Your task to perform on an android device: turn off airplane mode Image 0: 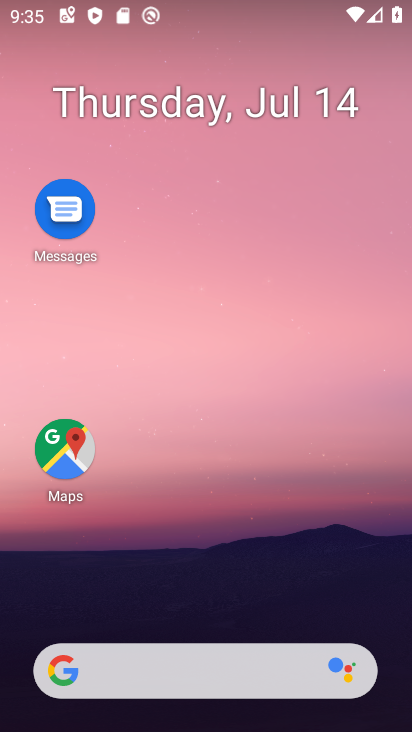
Step 0: drag from (202, 610) to (214, 105)
Your task to perform on an android device: turn off airplane mode Image 1: 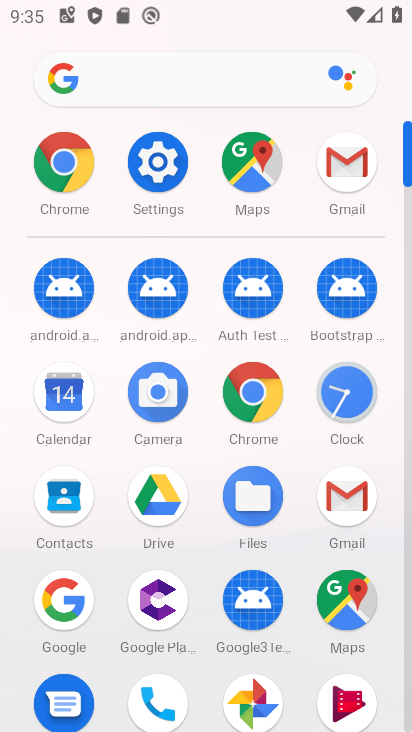
Step 1: click (139, 175)
Your task to perform on an android device: turn off airplane mode Image 2: 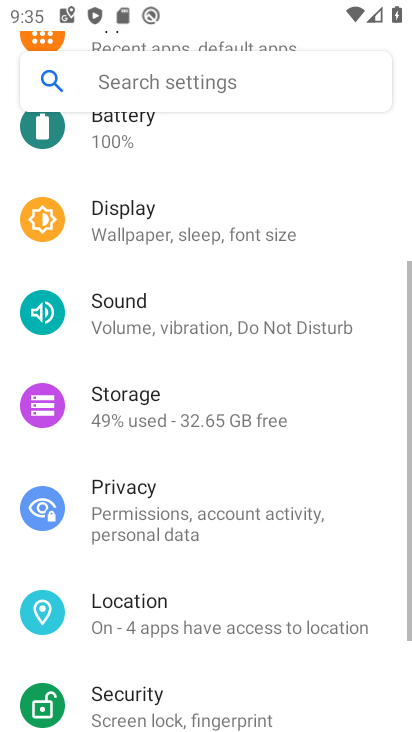
Step 2: drag from (161, 269) to (148, 691)
Your task to perform on an android device: turn off airplane mode Image 3: 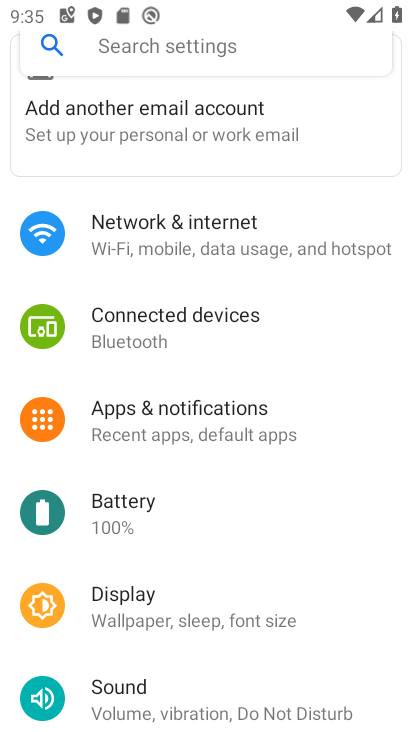
Step 3: click (154, 226)
Your task to perform on an android device: turn off airplane mode Image 4: 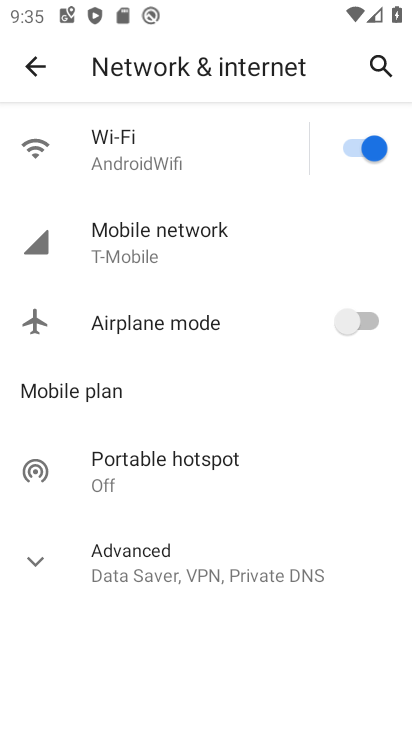
Step 4: task complete